Your task to perform on an android device: turn smart compose on in the gmail app Image 0: 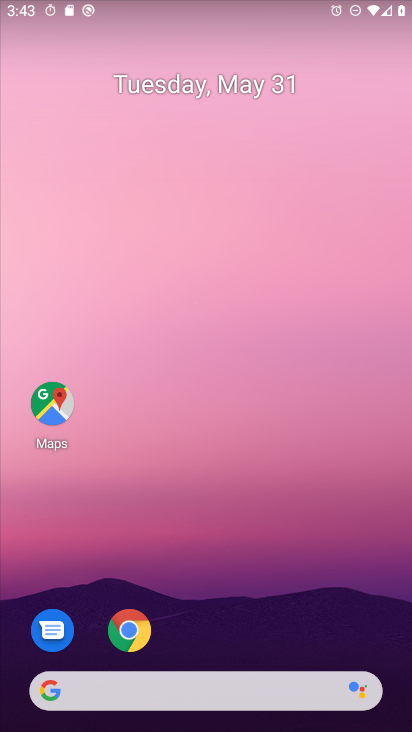
Step 0: drag from (309, 688) to (323, 0)
Your task to perform on an android device: turn smart compose on in the gmail app Image 1: 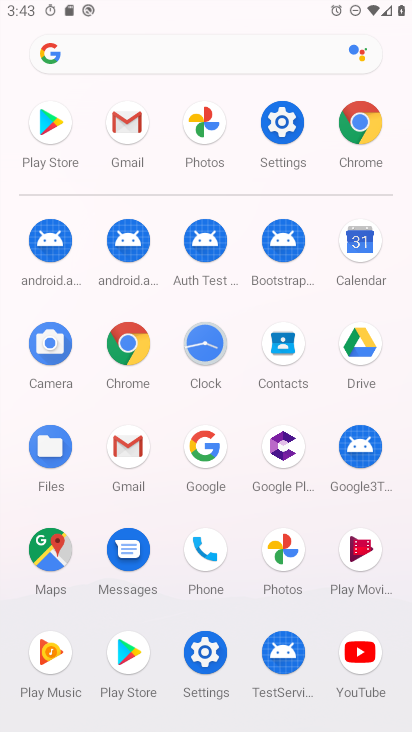
Step 1: click (124, 442)
Your task to perform on an android device: turn smart compose on in the gmail app Image 2: 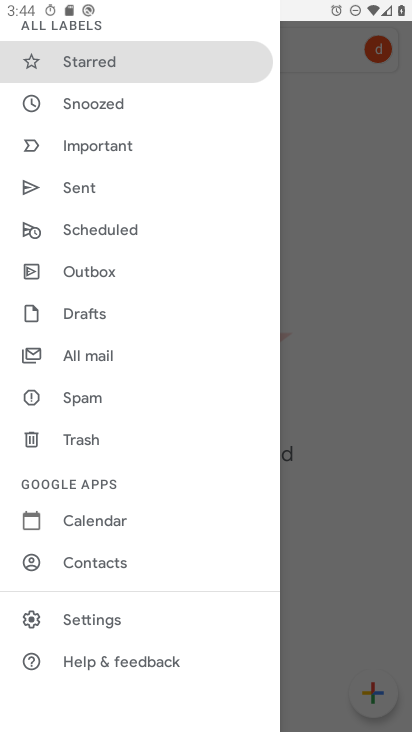
Step 2: click (139, 621)
Your task to perform on an android device: turn smart compose on in the gmail app Image 3: 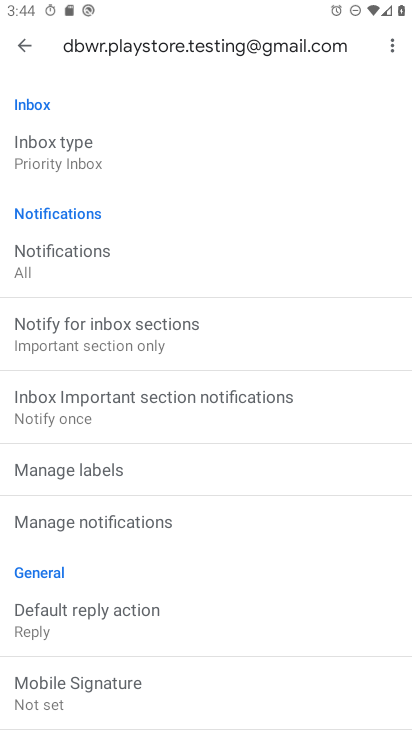
Step 3: task complete